Your task to perform on an android device: clear history in the chrome app Image 0: 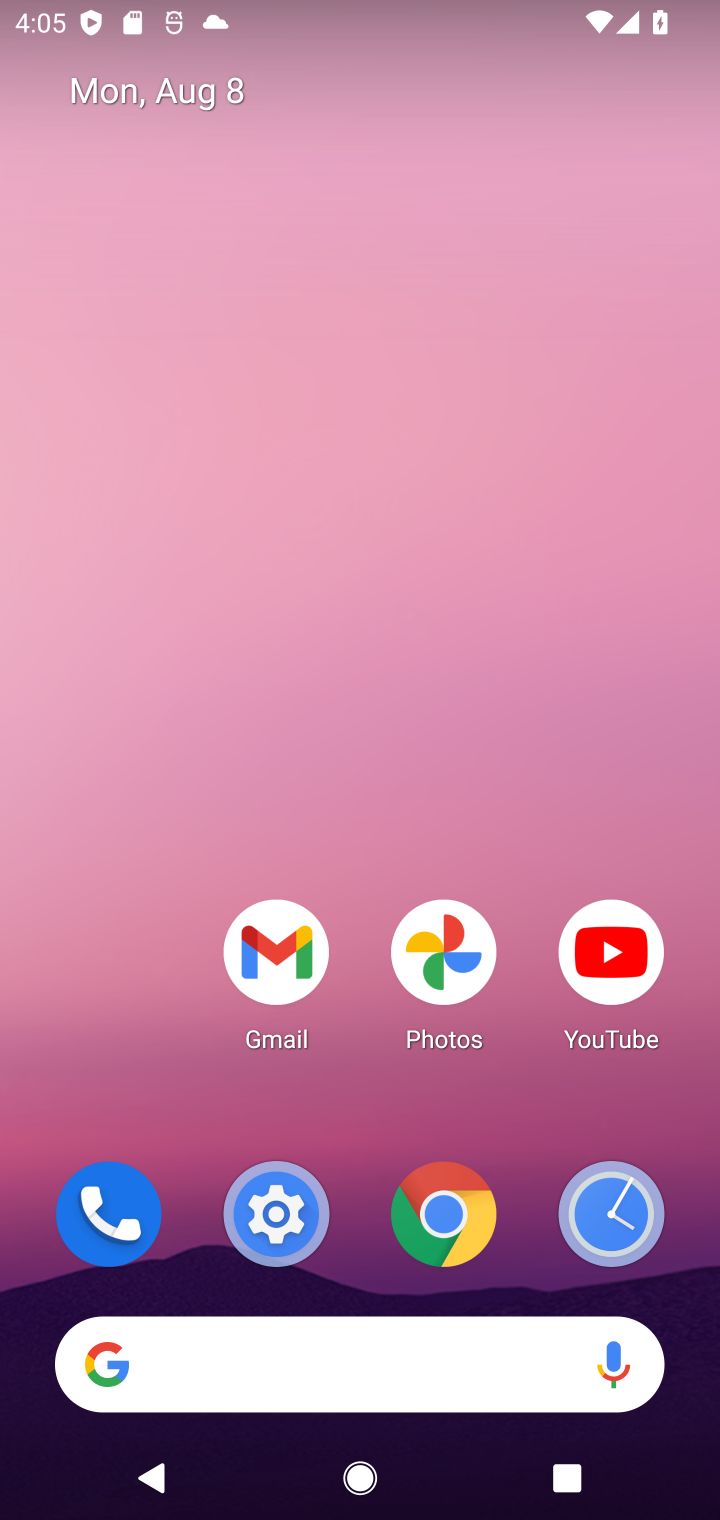
Step 0: click (453, 1218)
Your task to perform on an android device: clear history in the chrome app Image 1: 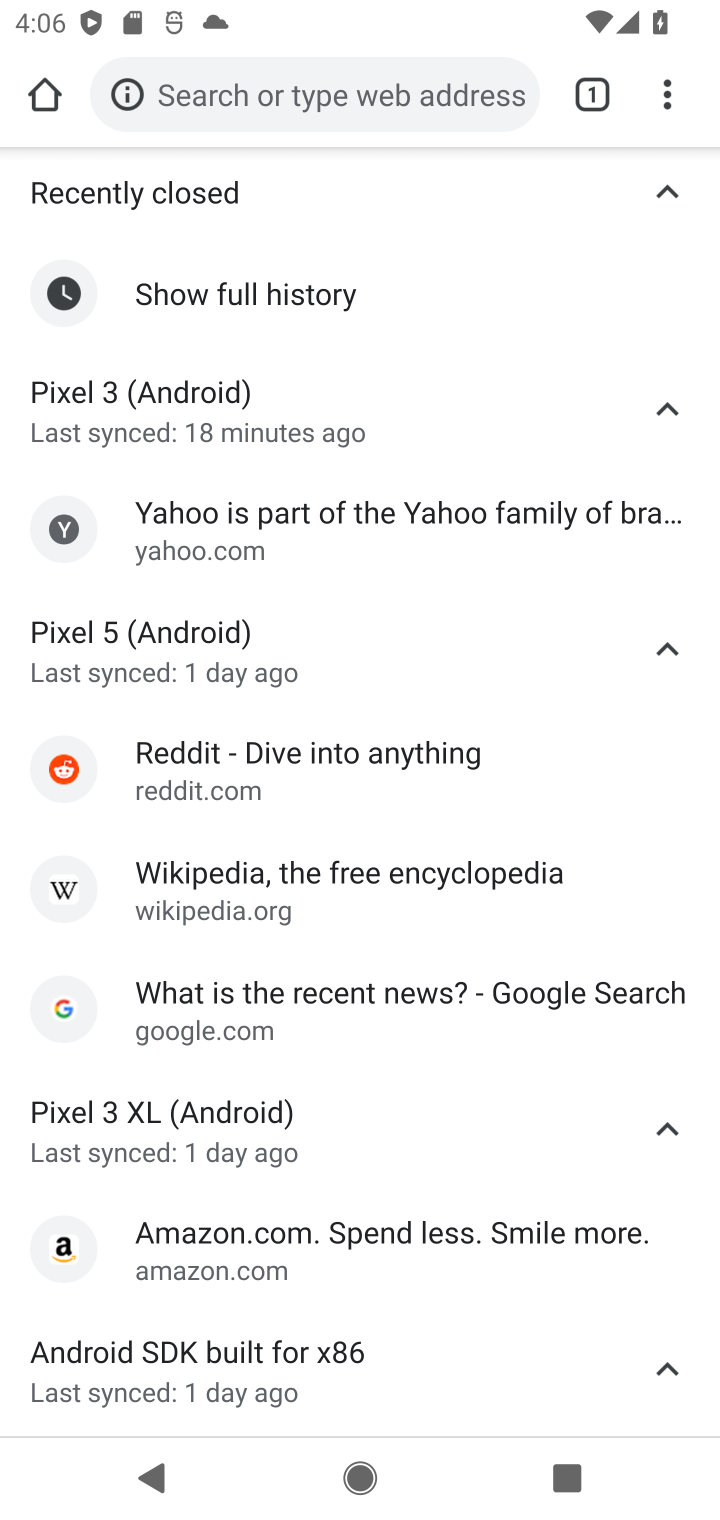
Step 1: click (669, 105)
Your task to perform on an android device: clear history in the chrome app Image 2: 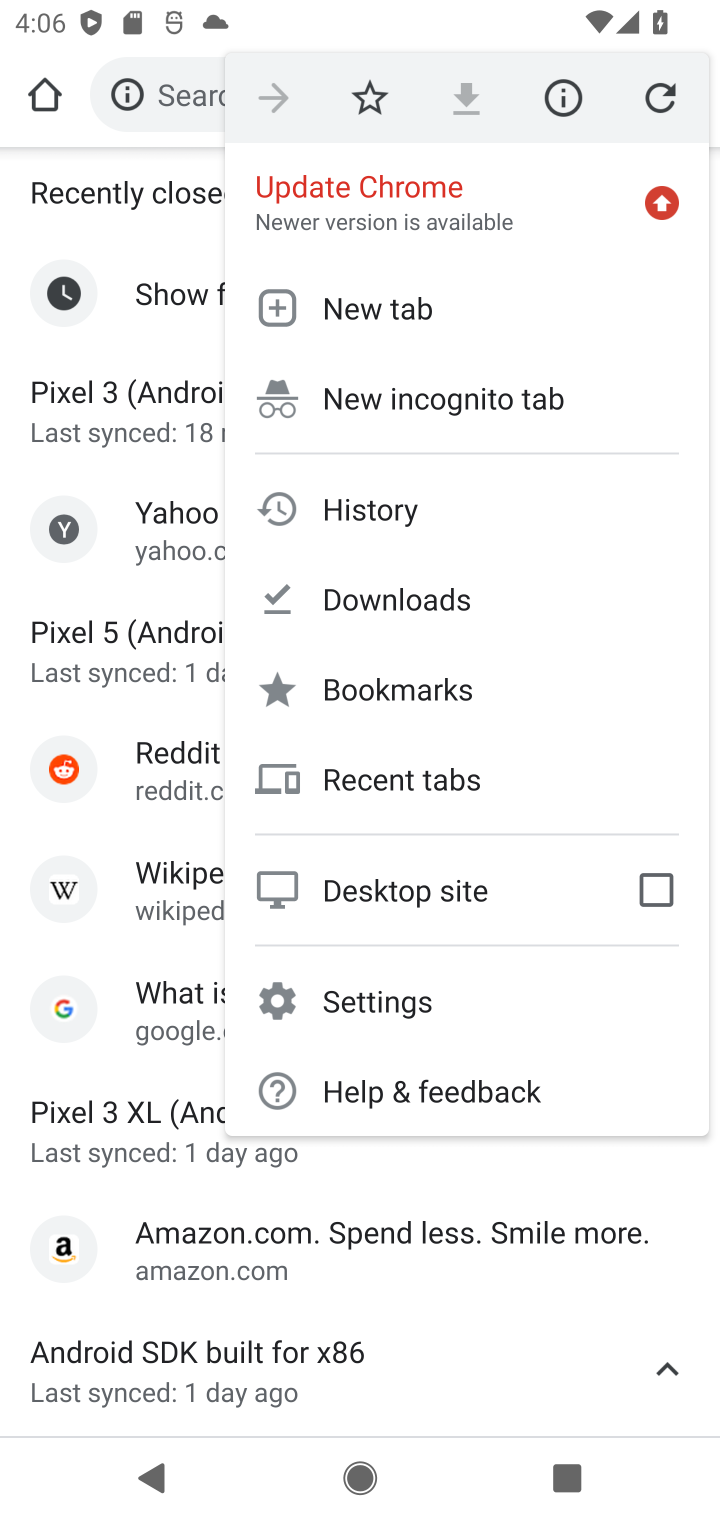
Step 2: click (373, 512)
Your task to perform on an android device: clear history in the chrome app Image 3: 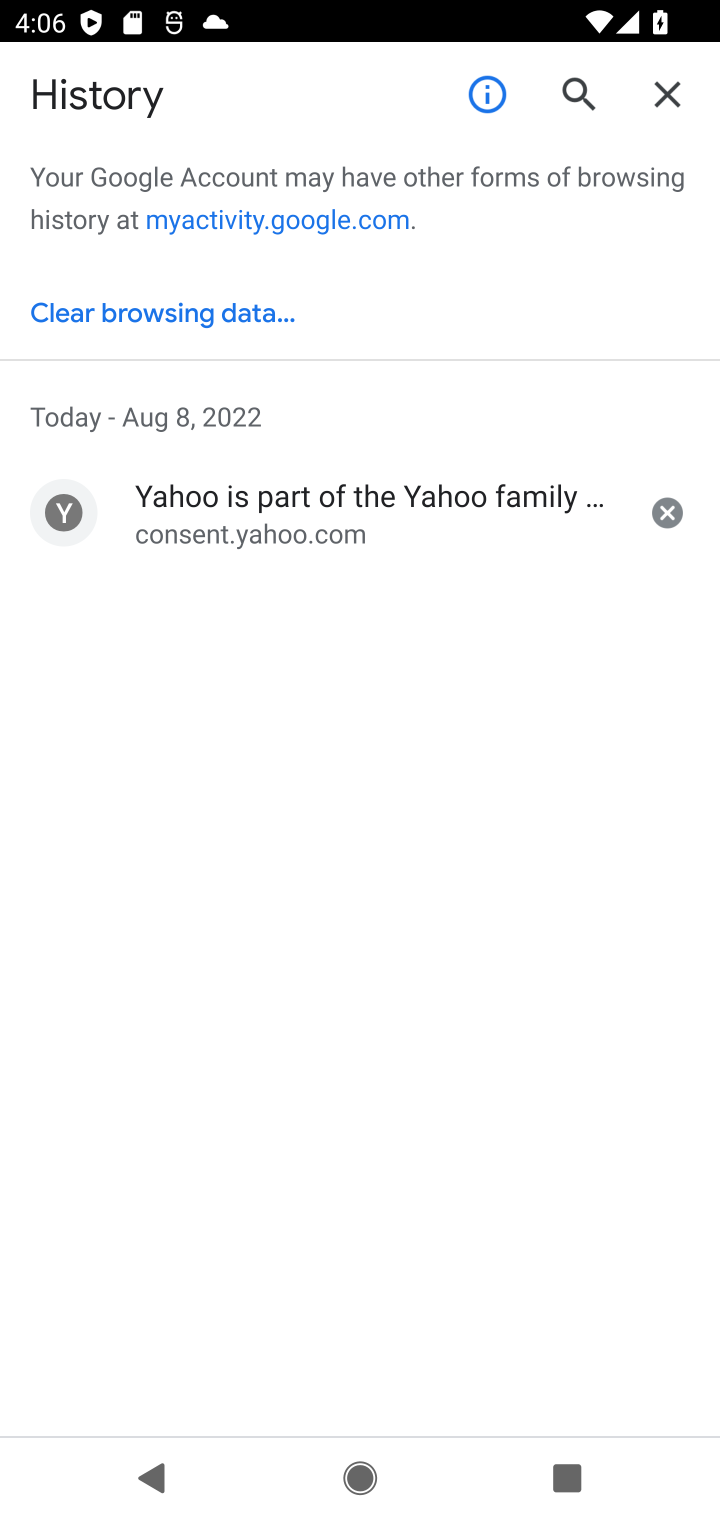
Step 3: click (143, 311)
Your task to perform on an android device: clear history in the chrome app Image 4: 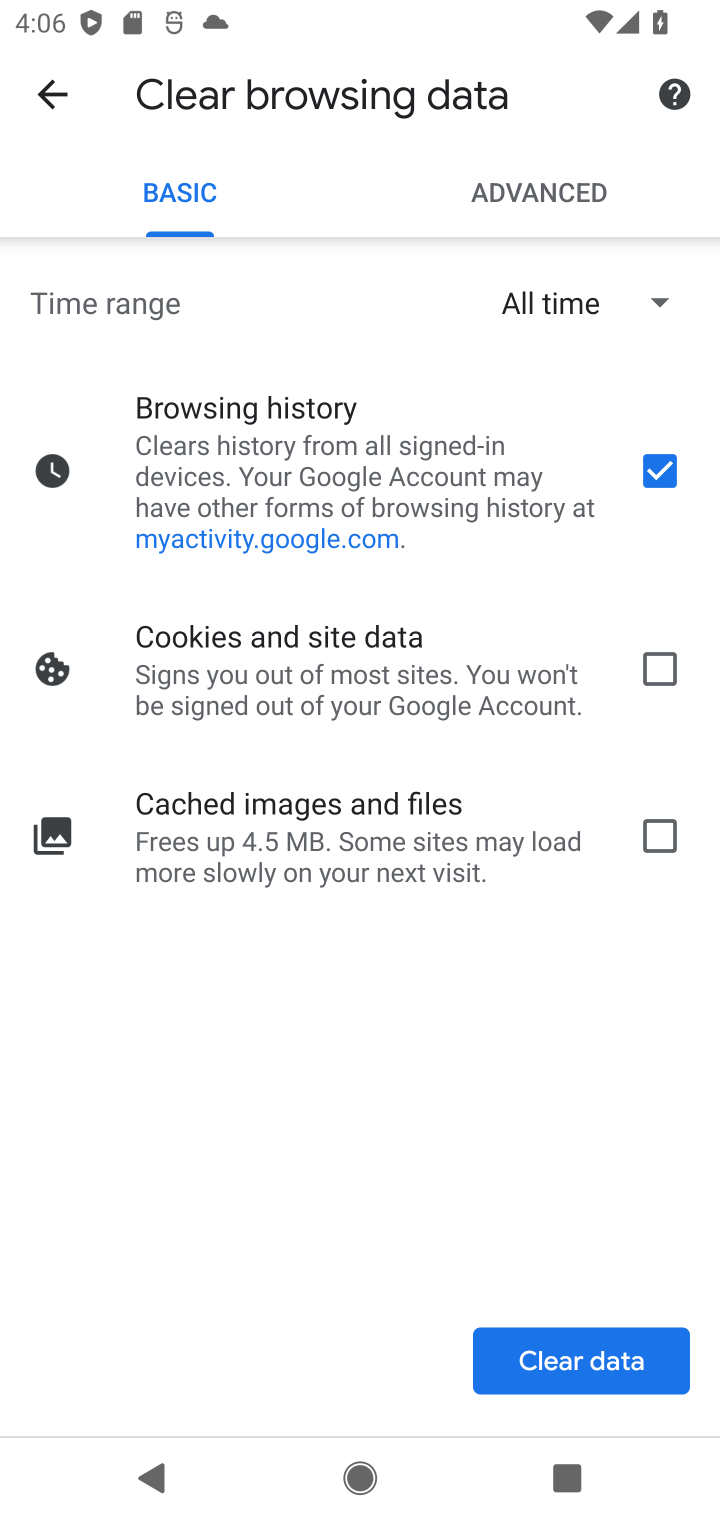
Step 4: click (609, 1361)
Your task to perform on an android device: clear history in the chrome app Image 5: 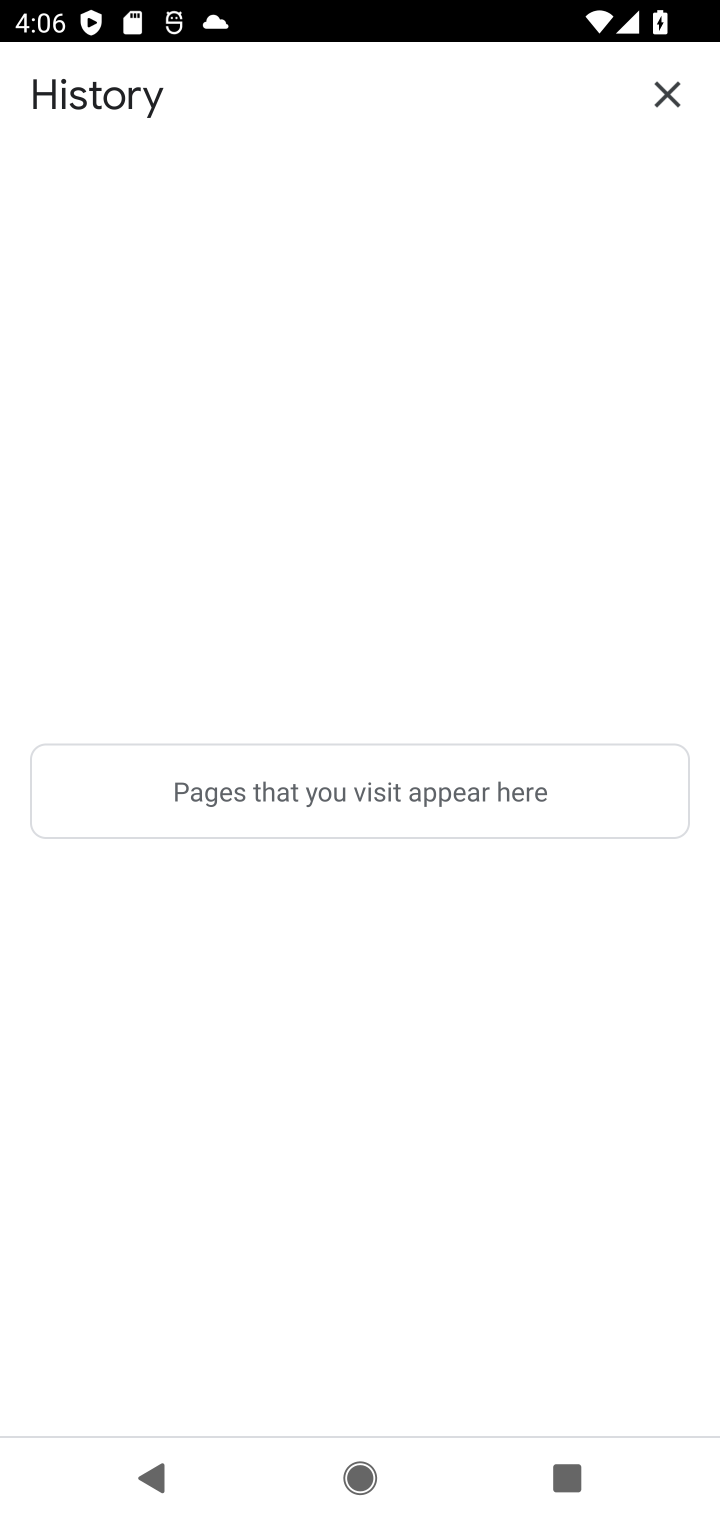
Step 5: task complete